Your task to perform on an android device: turn off picture-in-picture Image 0: 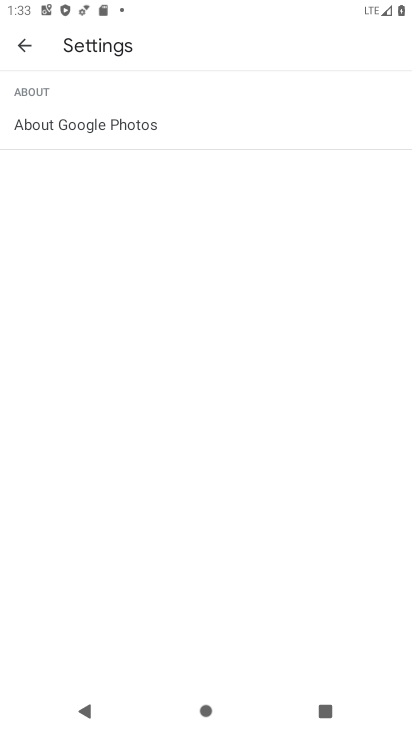
Step 0: press home button
Your task to perform on an android device: turn off picture-in-picture Image 1: 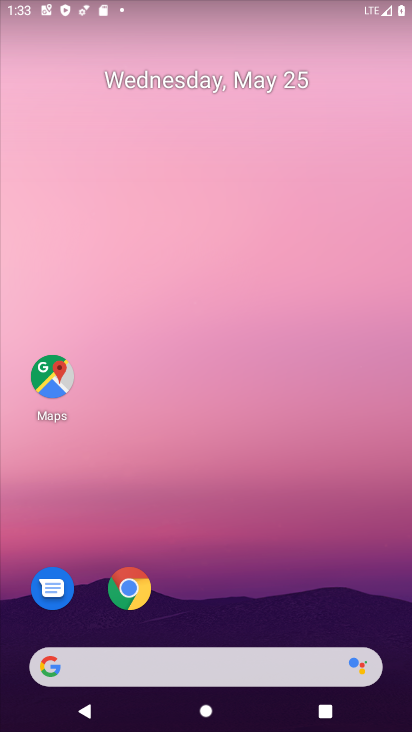
Step 1: click (136, 594)
Your task to perform on an android device: turn off picture-in-picture Image 2: 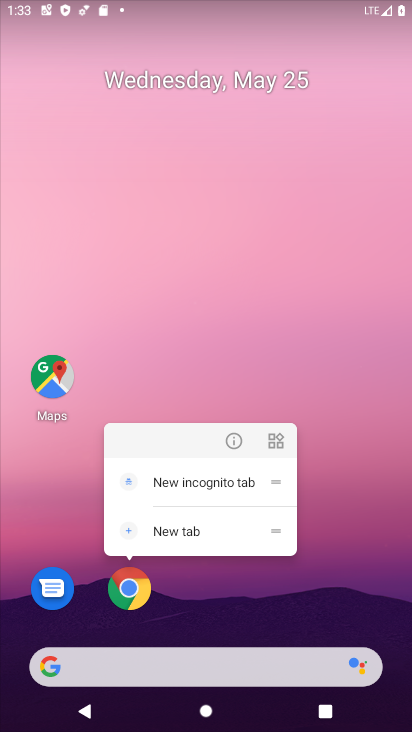
Step 2: click (234, 442)
Your task to perform on an android device: turn off picture-in-picture Image 3: 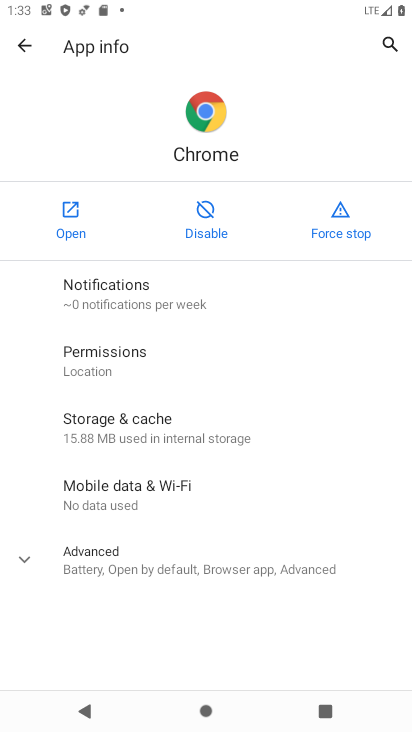
Step 3: click (26, 569)
Your task to perform on an android device: turn off picture-in-picture Image 4: 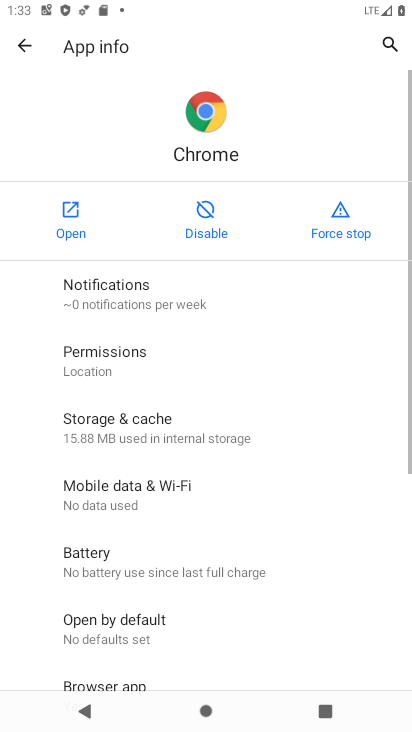
Step 4: drag from (172, 595) to (176, 241)
Your task to perform on an android device: turn off picture-in-picture Image 5: 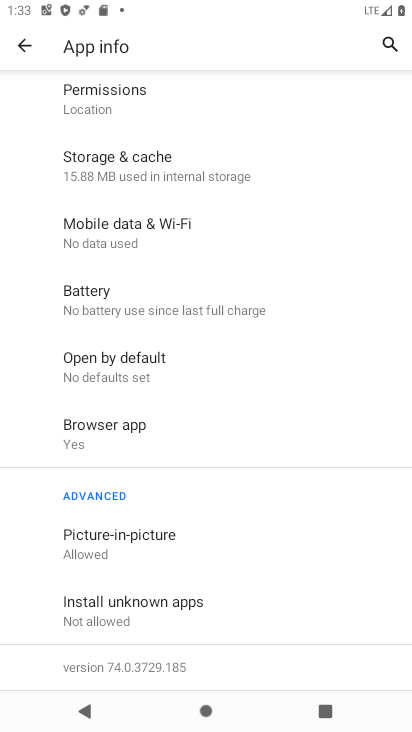
Step 5: click (111, 553)
Your task to perform on an android device: turn off picture-in-picture Image 6: 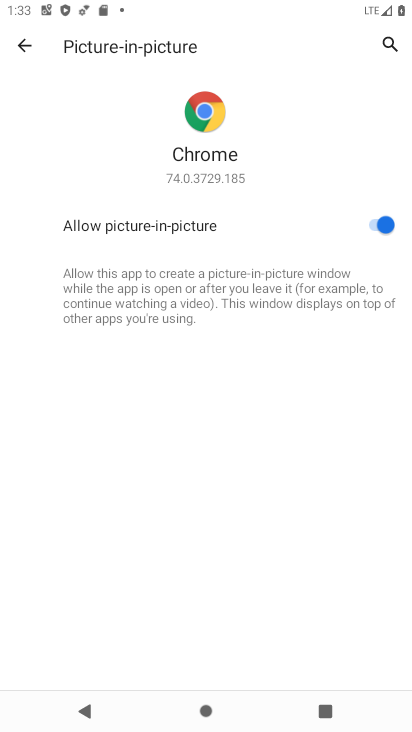
Step 6: click (386, 227)
Your task to perform on an android device: turn off picture-in-picture Image 7: 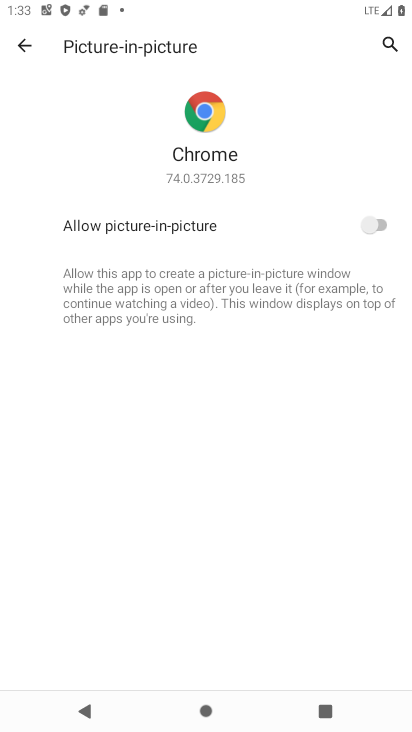
Step 7: task complete